Your task to perform on an android device: check storage Image 0: 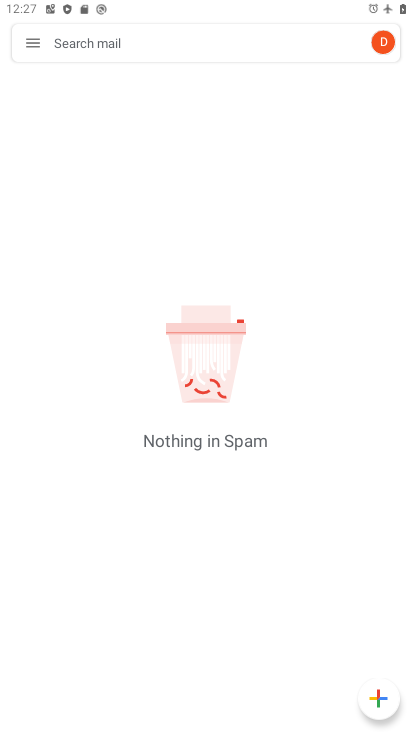
Step 0: press home button
Your task to perform on an android device: check storage Image 1: 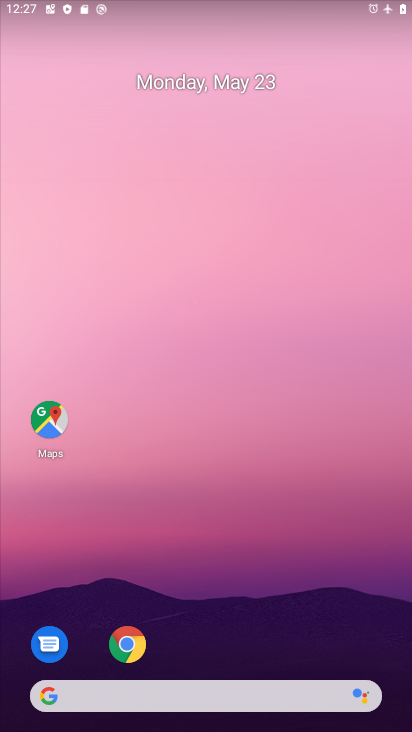
Step 1: drag from (335, 618) to (288, 125)
Your task to perform on an android device: check storage Image 2: 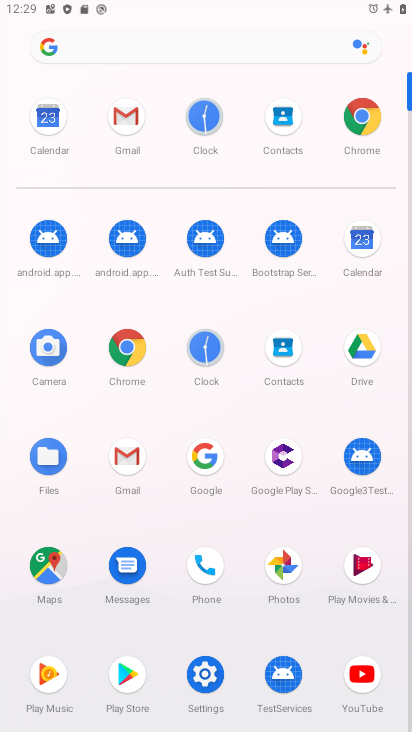
Step 2: click (206, 672)
Your task to perform on an android device: check storage Image 3: 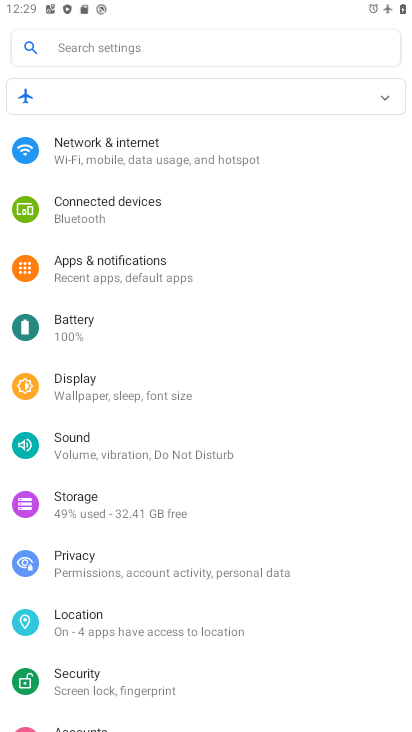
Step 3: click (138, 514)
Your task to perform on an android device: check storage Image 4: 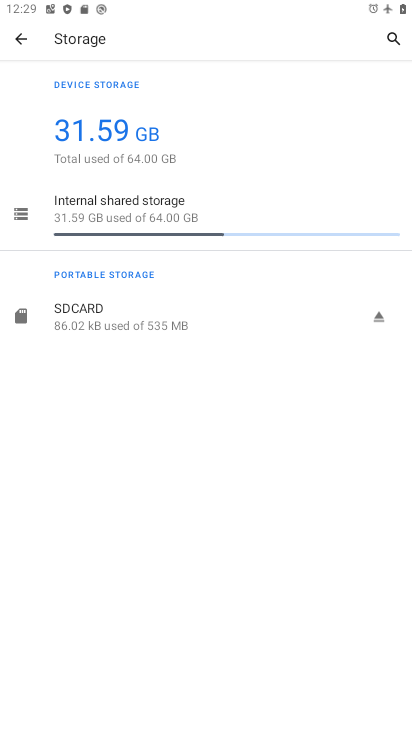
Step 4: click (135, 213)
Your task to perform on an android device: check storage Image 5: 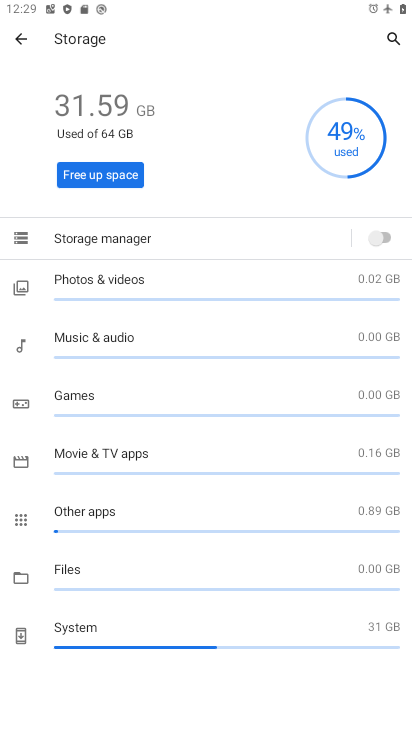
Step 5: task complete